Your task to perform on an android device: set an alarm Image 0: 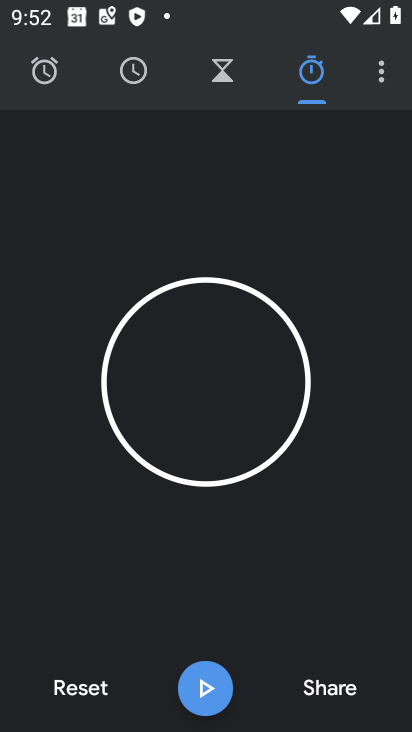
Step 0: click (42, 64)
Your task to perform on an android device: set an alarm Image 1: 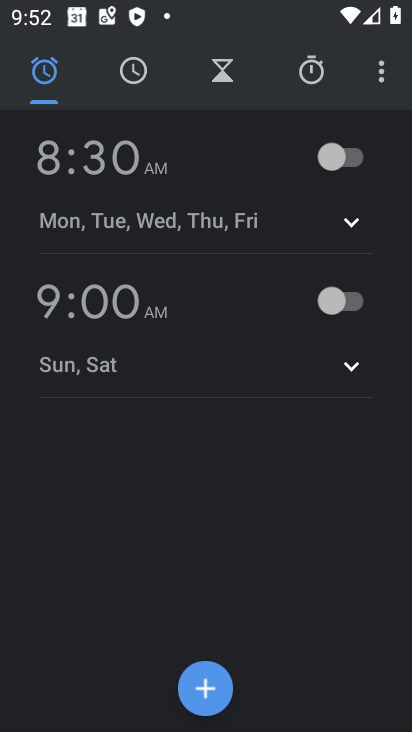
Step 1: click (208, 706)
Your task to perform on an android device: set an alarm Image 2: 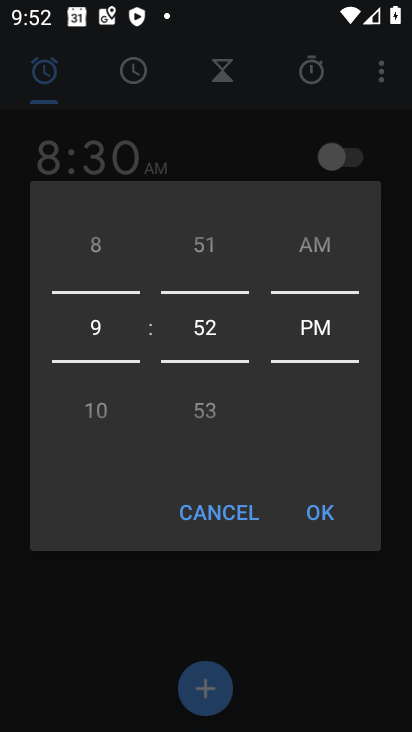
Step 2: drag from (91, 330) to (35, 715)
Your task to perform on an android device: set an alarm Image 3: 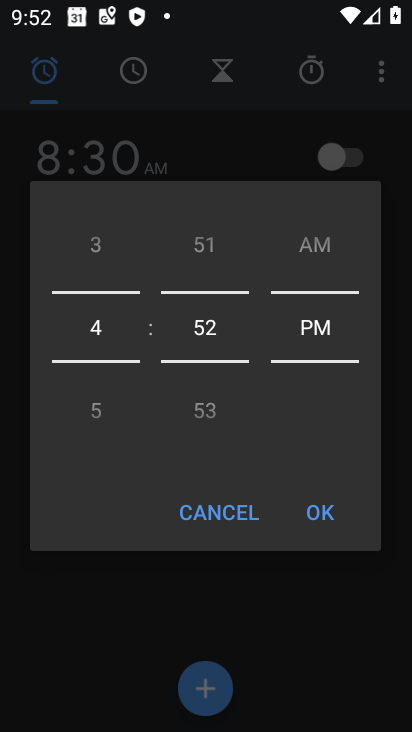
Step 3: drag from (200, 325) to (218, 609)
Your task to perform on an android device: set an alarm Image 4: 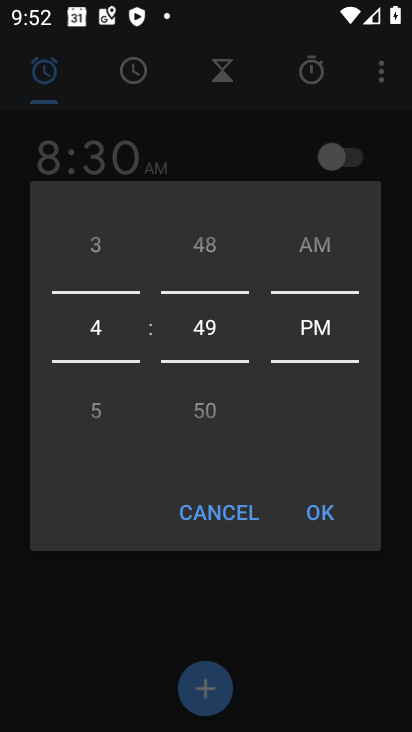
Step 4: drag from (198, 321) to (210, 488)
Your task to perform on an android device: set an alarm Image 5: 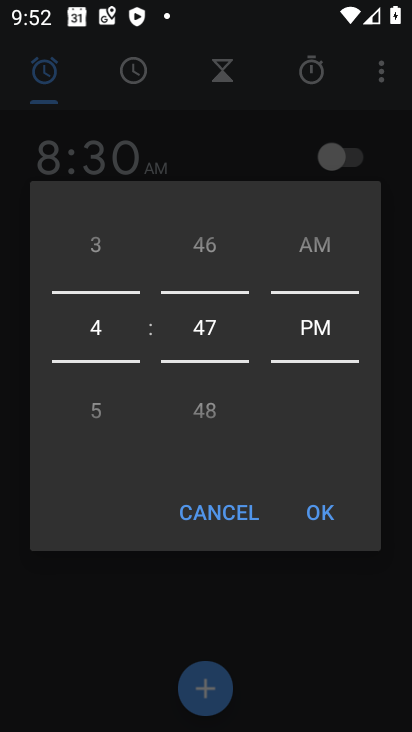
Step 5: drag from (206, 322) to (202, 400)
Your task to perform on an android device: set an alarm Image 6: 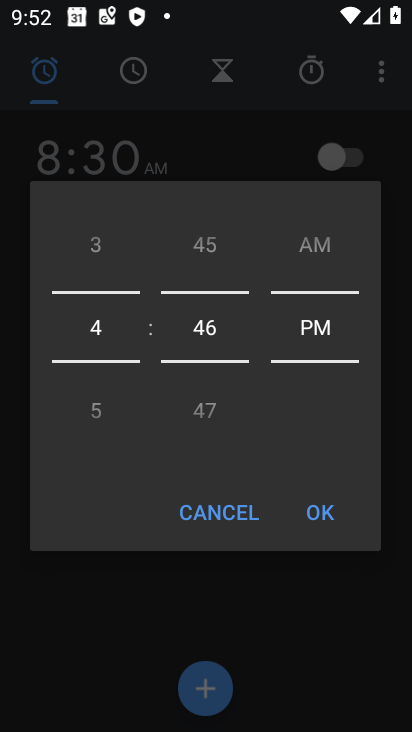
Step 6: drag from (217, 332) to (201, 476)
Your task to perform on an android device: set an alarm Image 7: 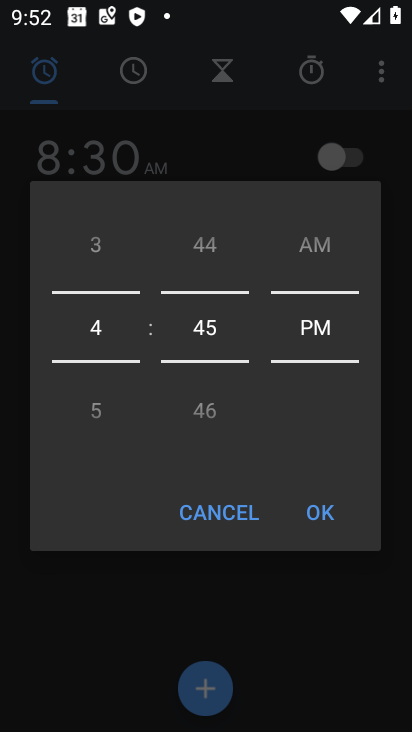
Step 7: drag from (311, 325) to (308, 492)
Your task to perform on an android device: set an alarm Image 8: 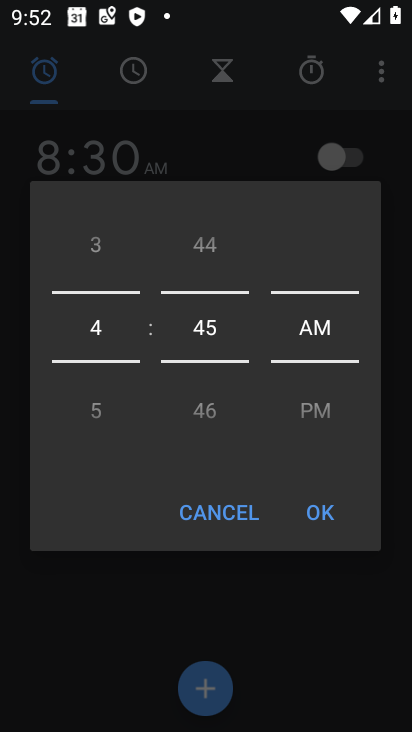
Step 8: click (323, 528)
Your task to perform on an android device: set an alarm Image 9: 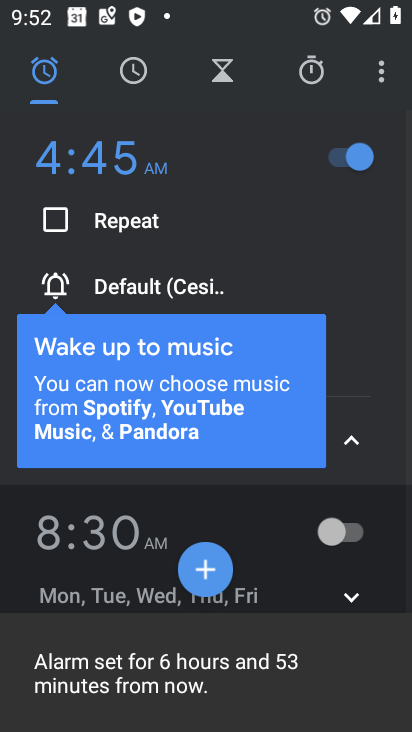
Step 9: task complete